Your task to perform on an android device: Open internet settings Image 0: 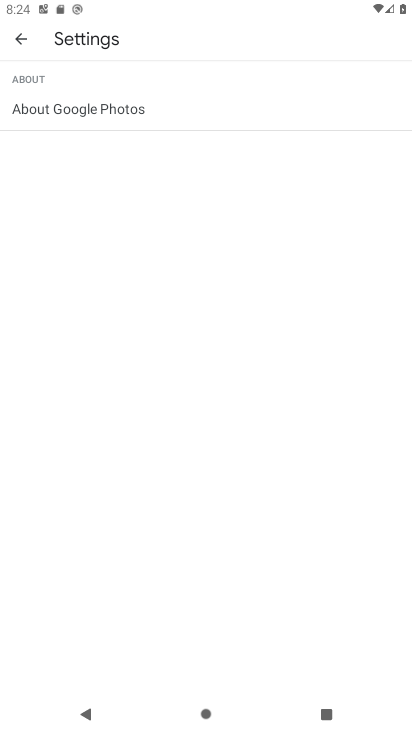
Step 0: press home button
Your task to perform on an android device: Open internet settings Image 1: 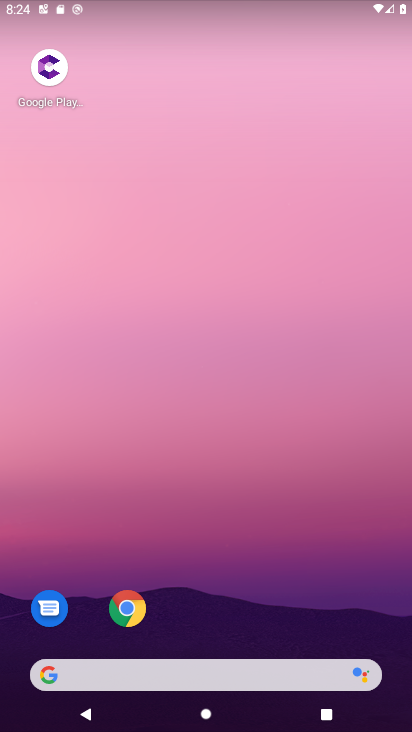
Step 1: drag from (351, 594) to (382, 48)
Your task to perform on an android device: Open internet settings Image 2: 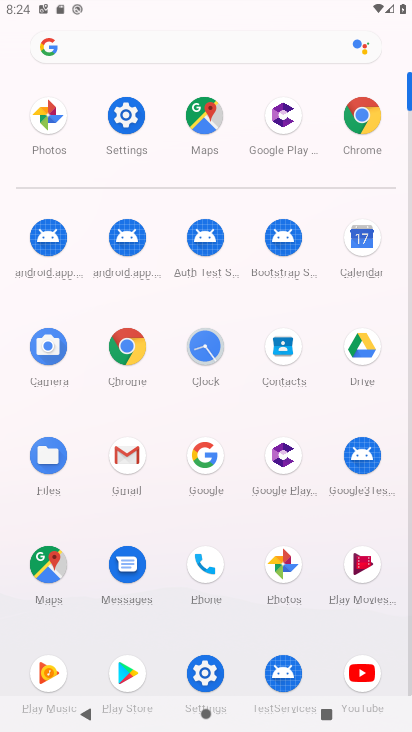
Step 2: click (134, 129)
Your task to perform on an android device: Open internet settings Image 3: 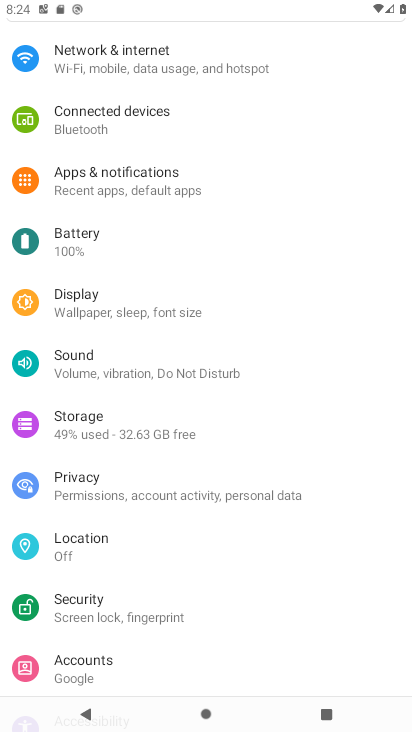
Step 3: drag from (377, 596) to (370, 444)
Your task to perform on an android device: Open internet settings Image 4: 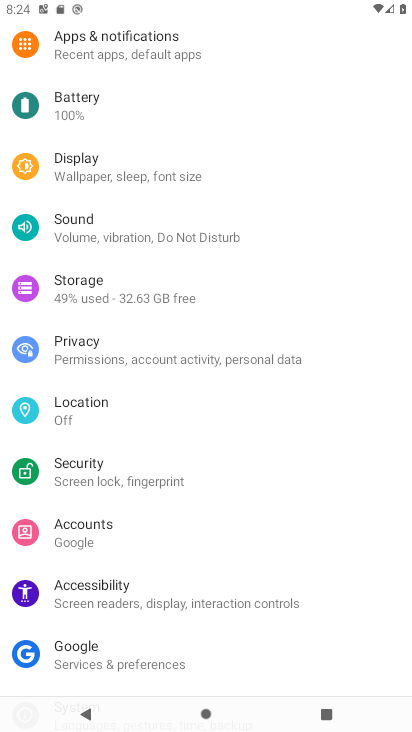
Step 4: drag from (361, 536) to (356, 480)
Your task to perform on an android device: Open internet settings Image 5: 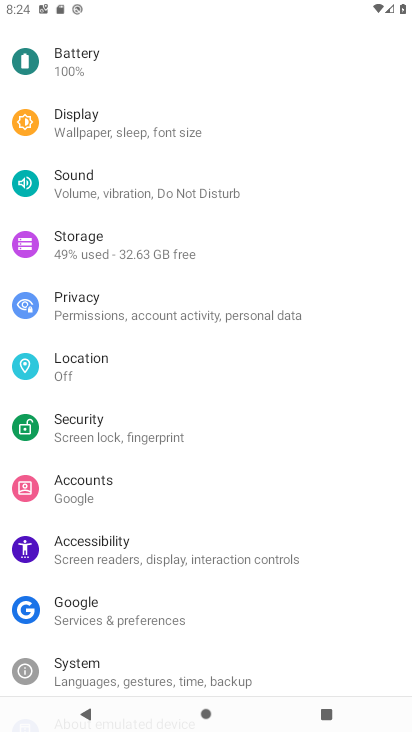
Step 5: drag from (365, 325) to (367, 380)
Your task to perform on an android device: Open internet settings Image 6: 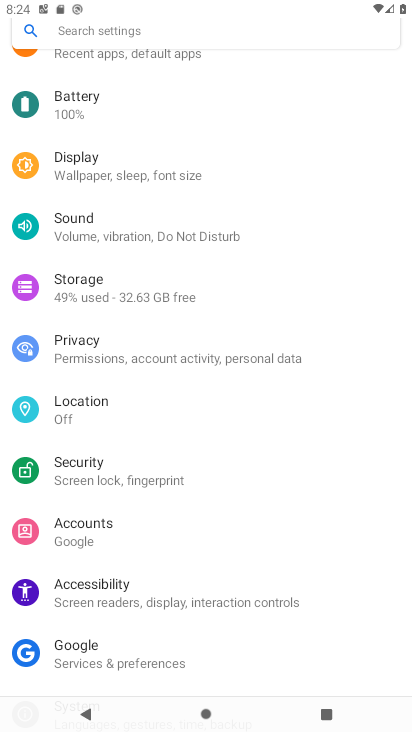
Step 6: click (367, 343)
Your task to perform on an android device: Open internet settings Image 7: 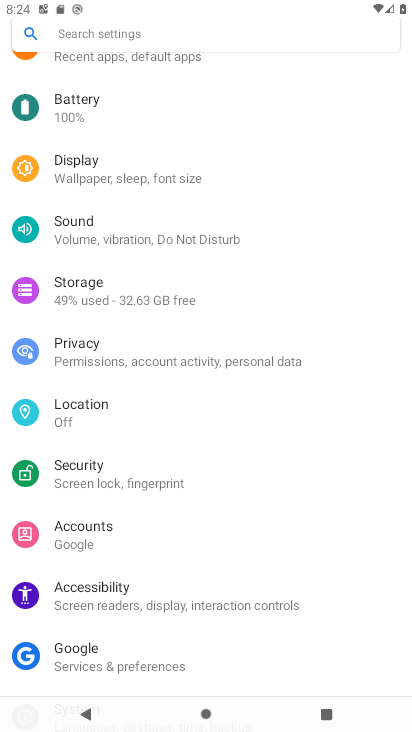
Step 7: drag from (379, 286) to (380, 366)
Your task to perform on an android device: Open internet settings Image 8: 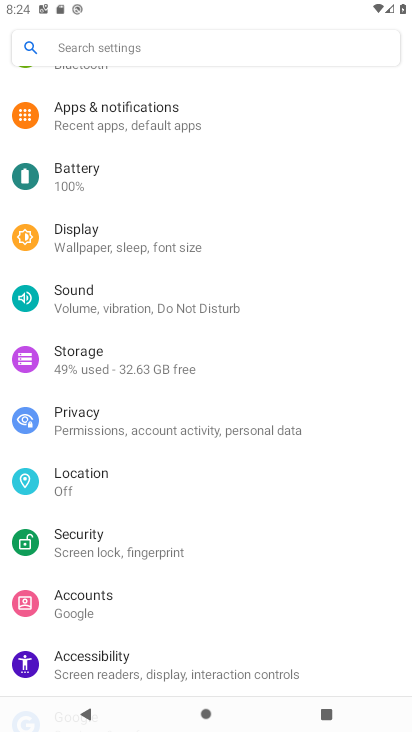
Step 8: drag from (388, 297) to (392, 352)
Your task to perform on an android device: Open internet settings Image 9: 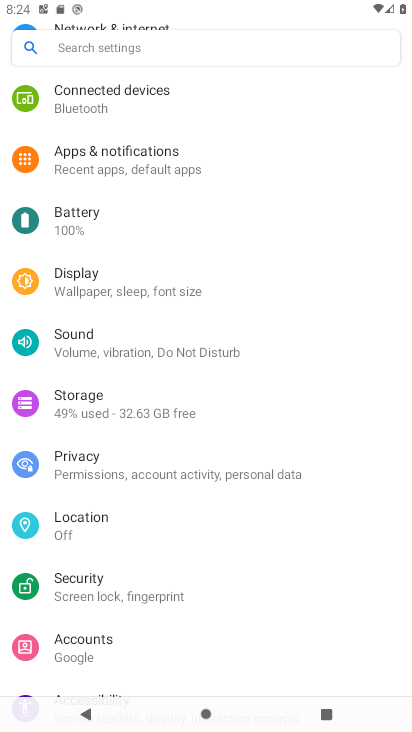
Step 9: drag from (398, 513) to (401, 432)
Your task to perform on an android device: Open internet settings Image 10: 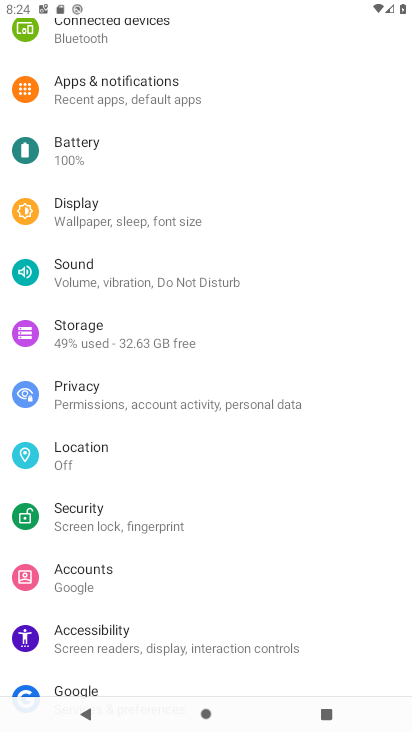
Step 10: drag from (368, 291) to (366, 401)
Your task to perform on an android device: Open internet settings Image 11: 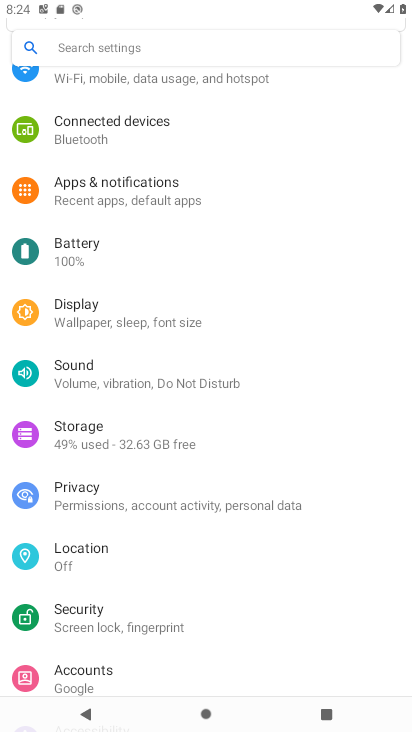
Step 11: drag from (373, 266) to (371, 426)
Your task to perform on an android device: Open internet settings Image 12: 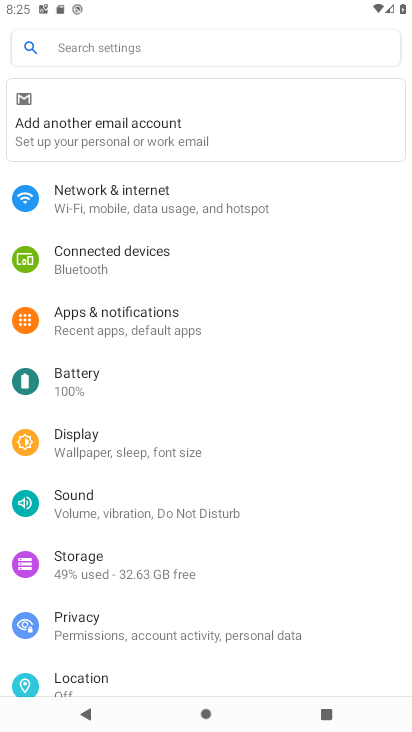
Step 12: drag from (353, 439) to (351, 369)
Your task to perform on an android device: Open internet settings Image 13: 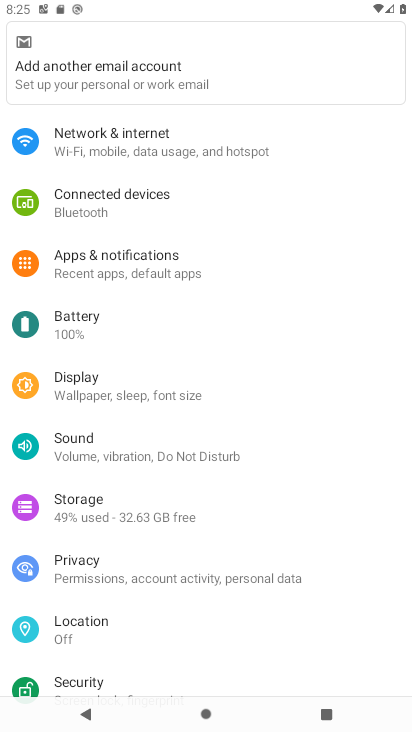
Step 13: drag from (344, 479) to (354, 385)
Your task to perform on an android device: Open internet settings Image 14: 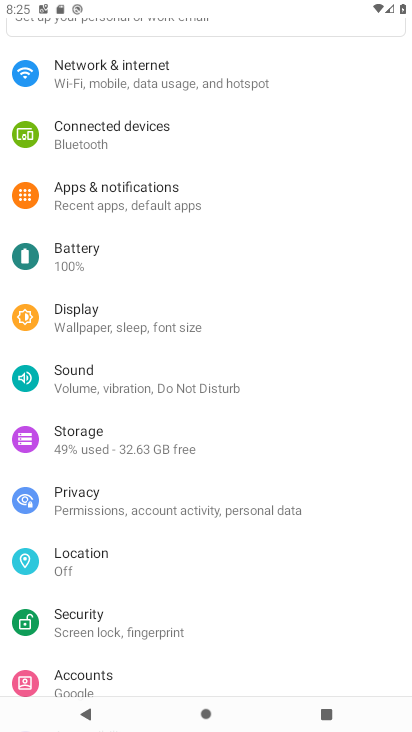
Step 14: drag from (359, 480) to (359, 411)
Your task to perform on an android device: Open internet settings Image 15: 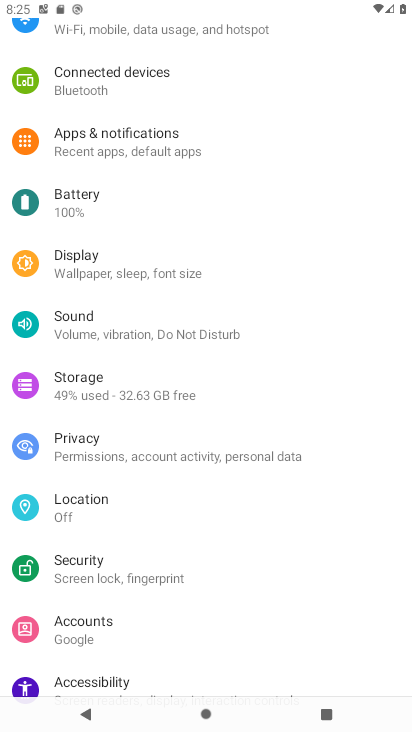
Step 15: drag from (363, 346) to (366, 433)
Your task to perform on an android device: Open internet settings Image 16: 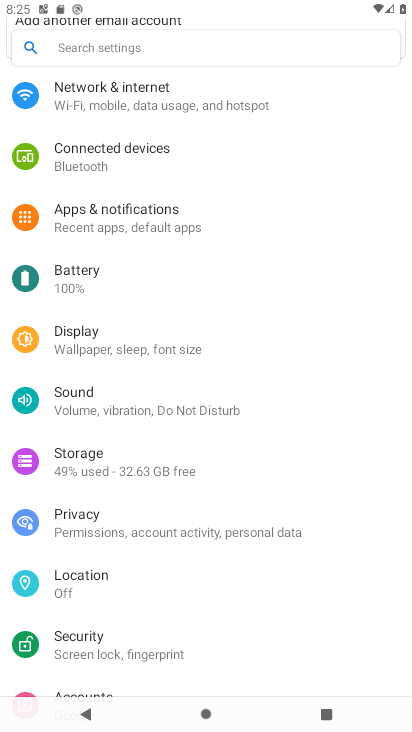
Step 16: drag from (357, 238) to (370, 367)
Your task to perform on an android device: Open internet settings Image 17: 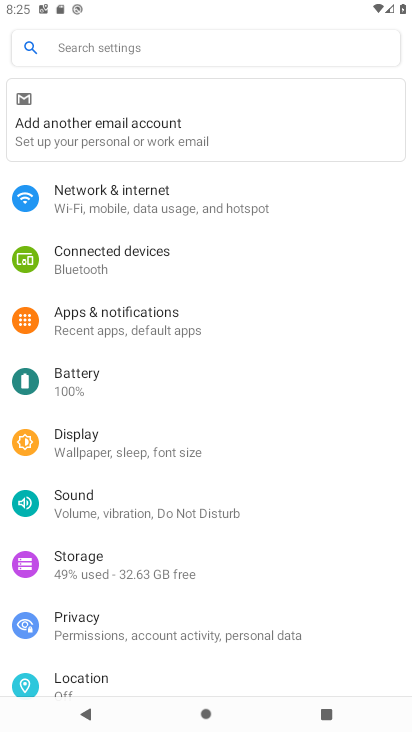
Step 17: click (255, 200)
Your task to perform on an android device: Open internet settings Image 18: 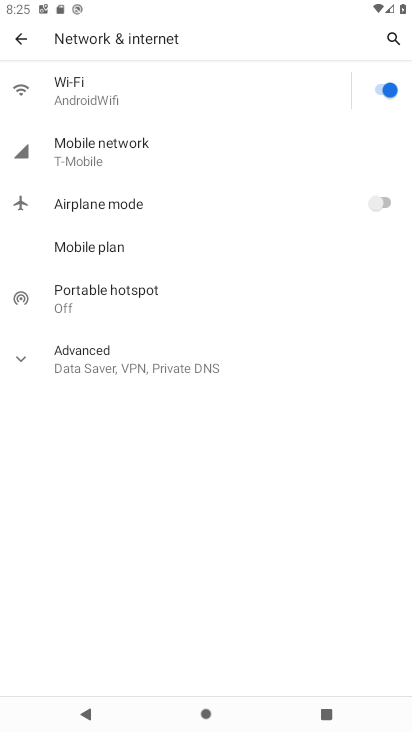
Step 18: task complete